Your task to perform on an android device: Show me recent news Image 0: 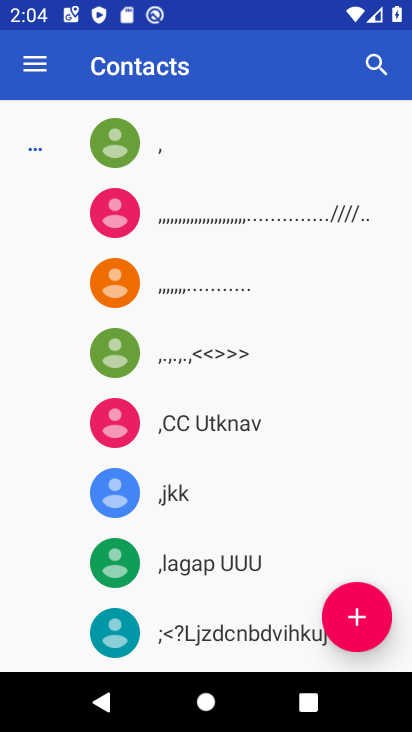
Step 0: press home button
Your task to perform on an android device: Show me recent news Image 1: 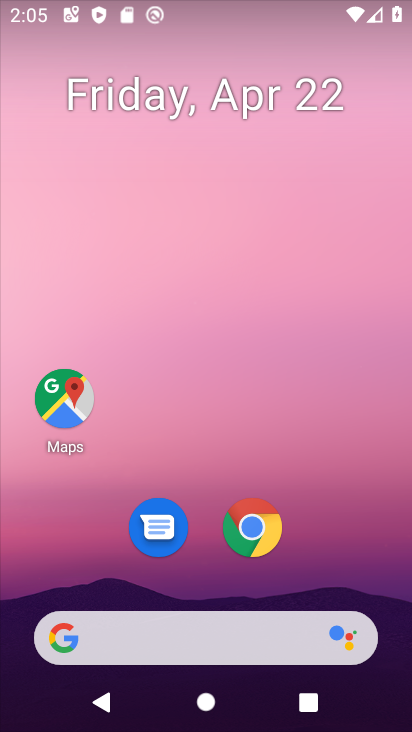
Step 1: drag from (329, 532) to (367, 95)
Your task to perform on an android device: Show me recent news Image 2: 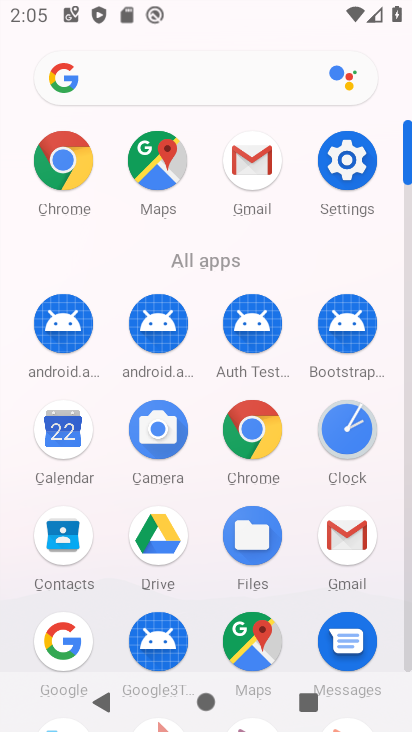
Step 2: drag from (194, 316) to (218, 48)
Your task to perform on an android device: Show me recent news Image 3: 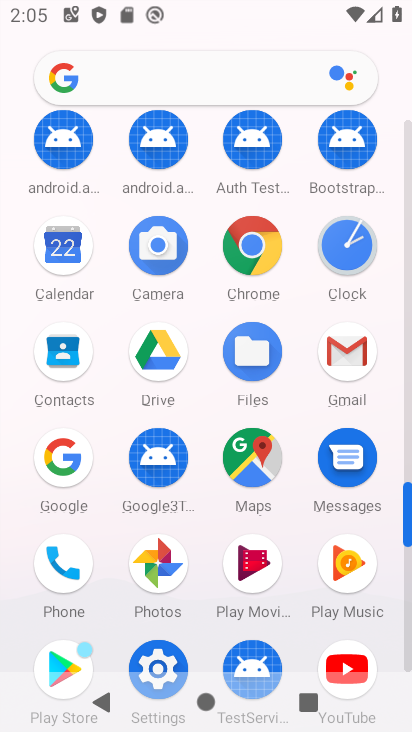
Step 3: click (260, 251)
Your task to perform on an android device: Show me recent news Image 4: 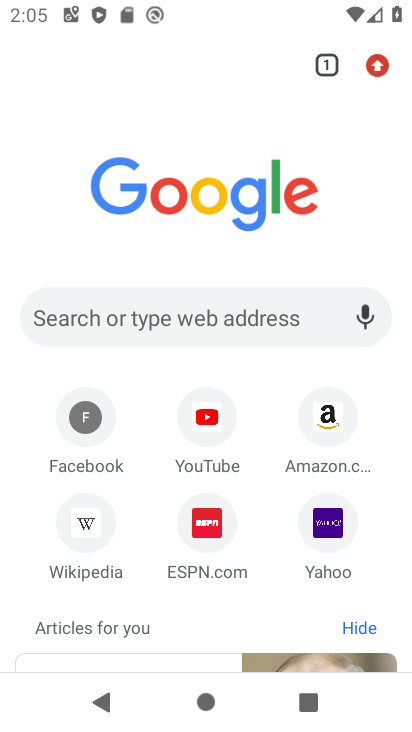
Step 4: click (88, 323)
Your task to perform on an android device: Show me recent news Image 5: 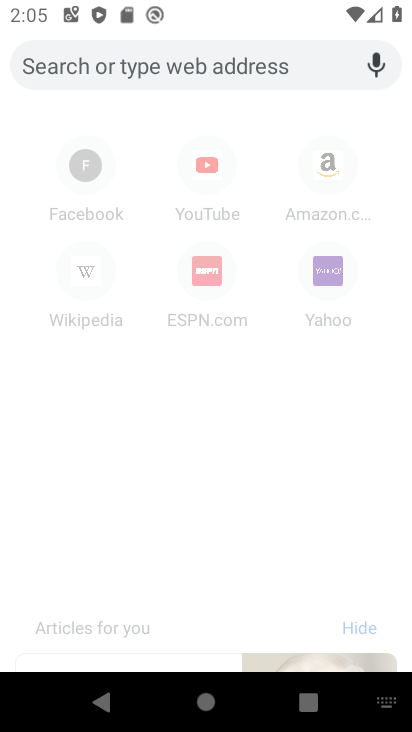
Step 5: type " recent news"
Your task to perform on an android device: Show me recent news Image 6: 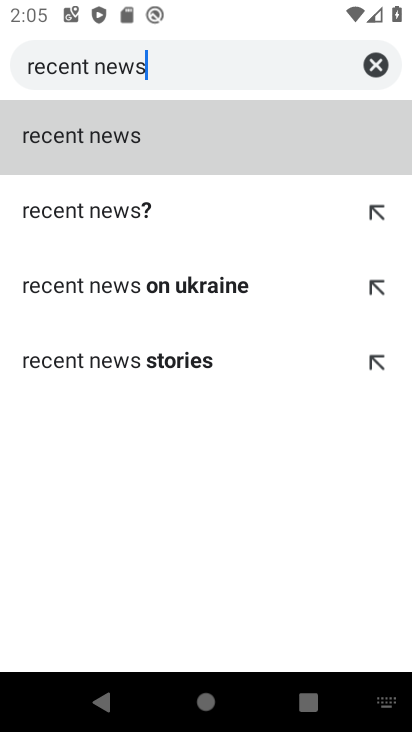
Step 6: click (124, 140)
Your task to perform on an android device: Show me recent news Image 7: 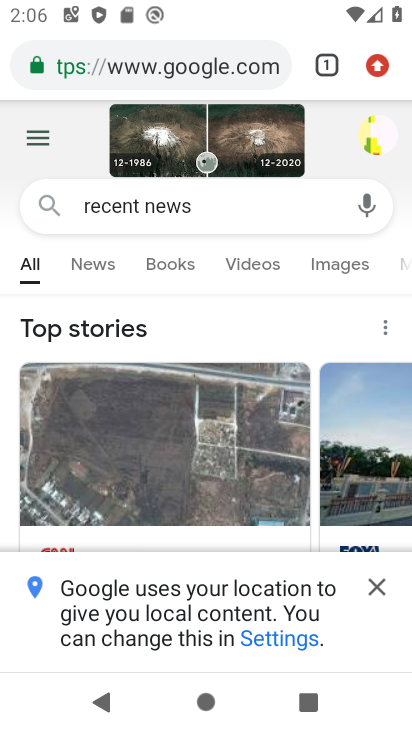
Step 7: click (96, 263)
Your task to perform on an android device: Show me recent news Image 8: 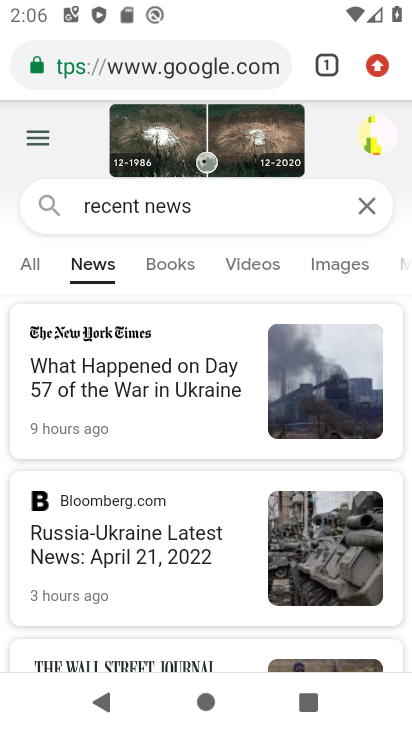
Step 8: task complete